Your task to perform on an android device: Open Chrome and go to settings Image 0: 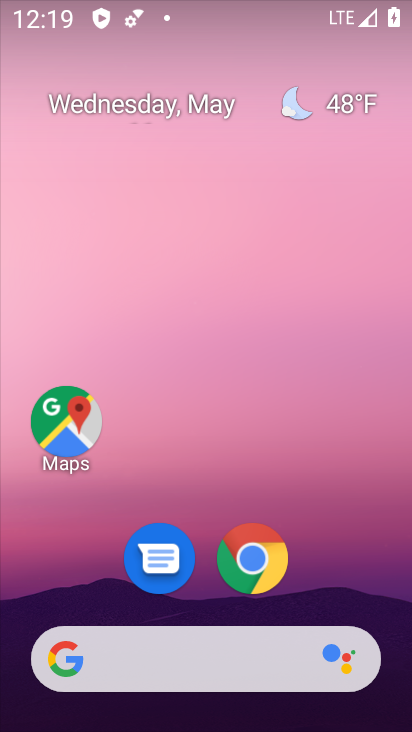
Step 0: drag from (368, 607) to (330, 205)
Your task to perform on an android device: Open Chrome and go to settings Image 1: 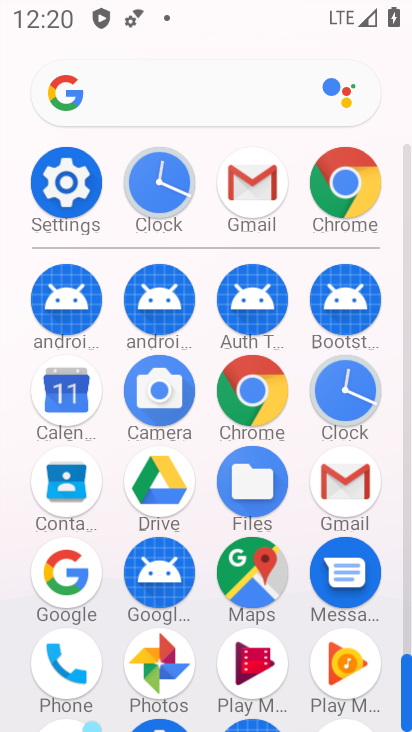
Step 1: click (232, 405)
Your task to perform on an android device: Open Chrome and go to settings Image 2: 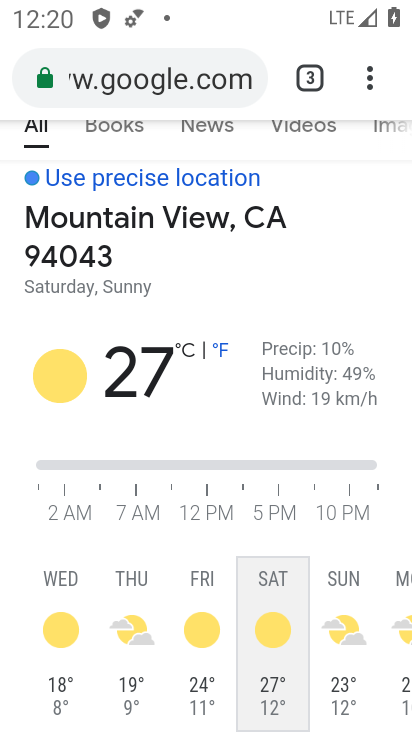
Step 2: task complete